Your task to perform on an android device: turn off sleep mode Image 0: 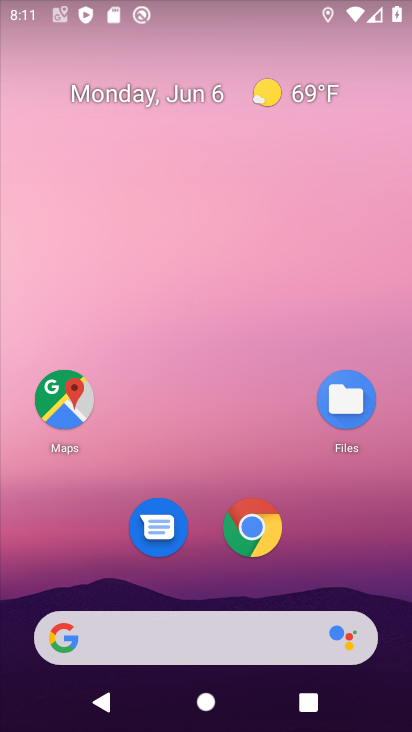
Step 0: drag from (190, 570) to (197, 126)
Your task to perform on an android device: turn off sleep mode Image 1: 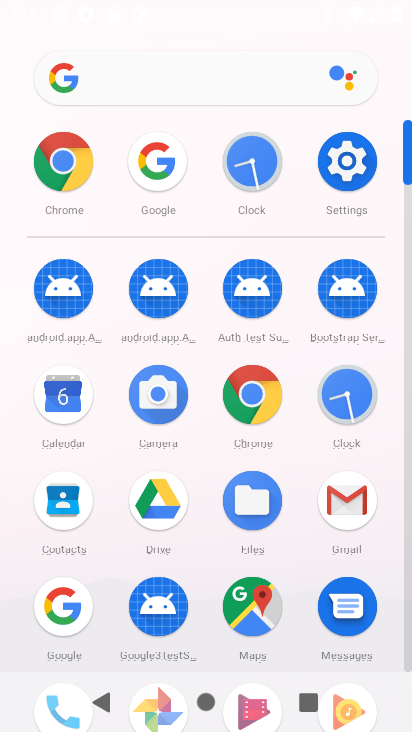
Step 1: click (354, 160)
Your task to perform on an android device: turn off sleep mode Image 2: 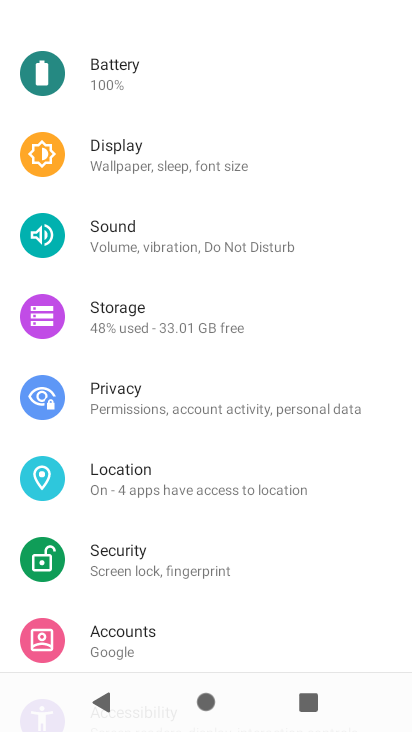
Step 2: click (171, 155)
Your task to perform on an android device: turn off sleep mode Image 3: 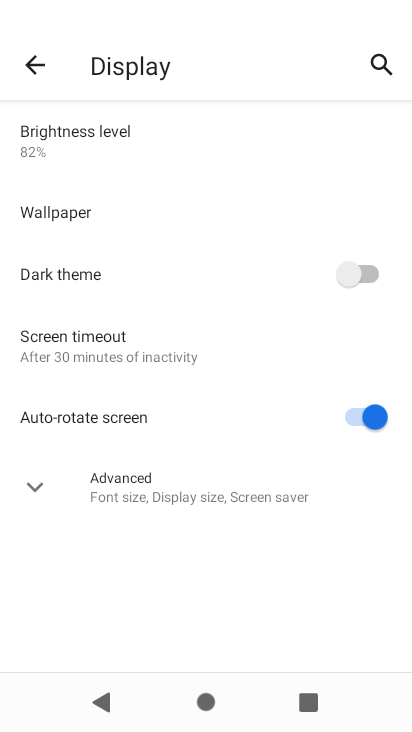
Step 3: click (84, 344)
Your task to perform on an android device: turn off sleep mode Image 4: 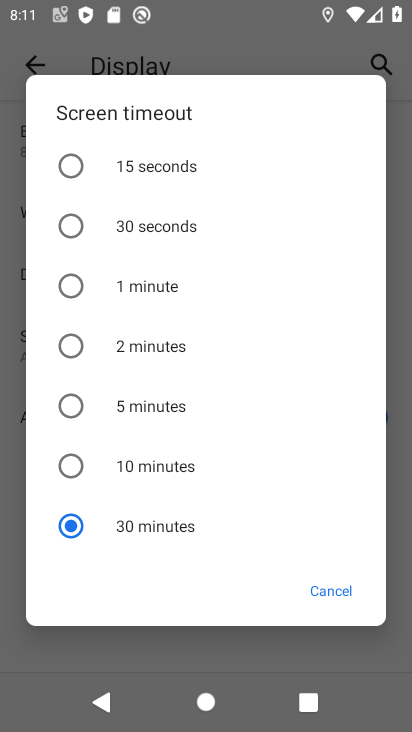
Step 4: task complete